Your task to perform on an android device: Open Google Chrome Image 0: 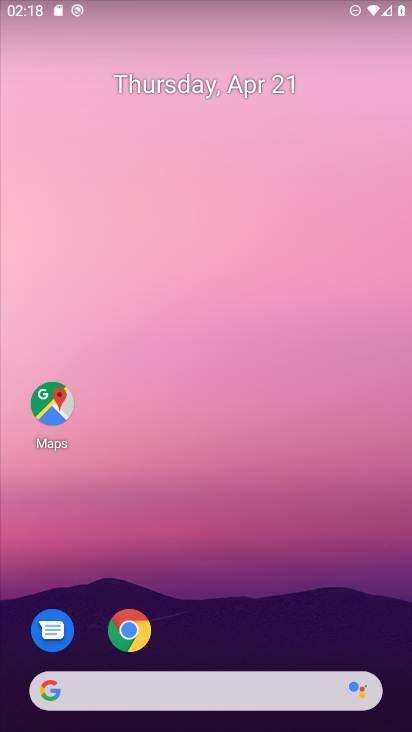
Step 0: click (120, 639)
Your task to perform on an android device: Open Google Chrome Image 1: 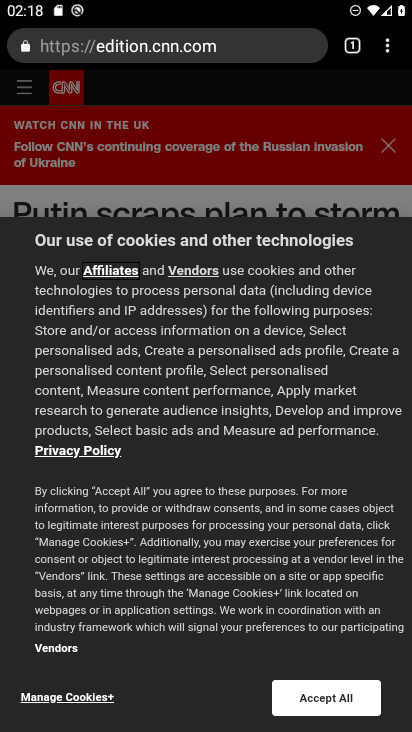
Step 1: task complete